Your task to perform on an android device: toggle translation in the chrome app Image 0: 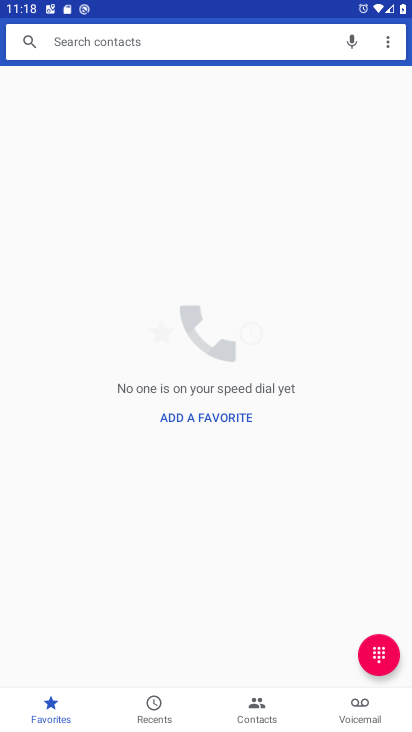
Step 0: press home button
Your task to perform on an android device: toggle translation in the chrome app Image 1: 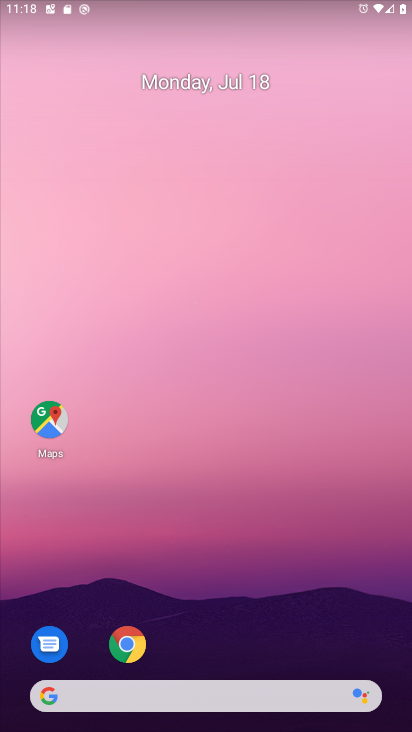
Step 1: click (123, 651)
Your task to perform on an android device: toggle translation in the chrome app Image 2: 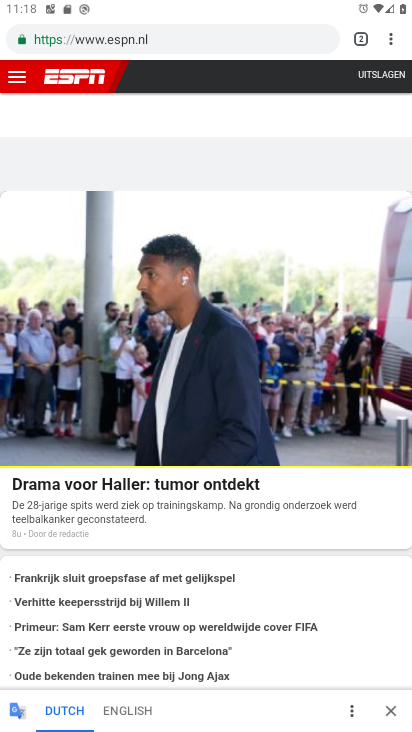
Step 2: task complete